Your task to perform on an android device: show emergency info Image 0: 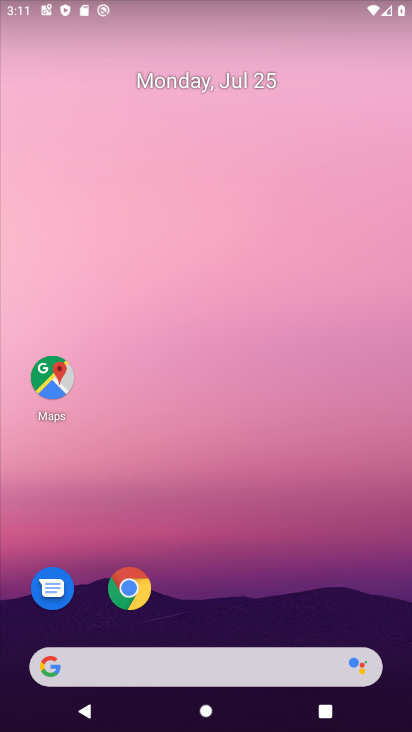
Step 0: drag from (330, 539) to (308, 64)
Your task to perform on an android device: show emergency info Image 1: 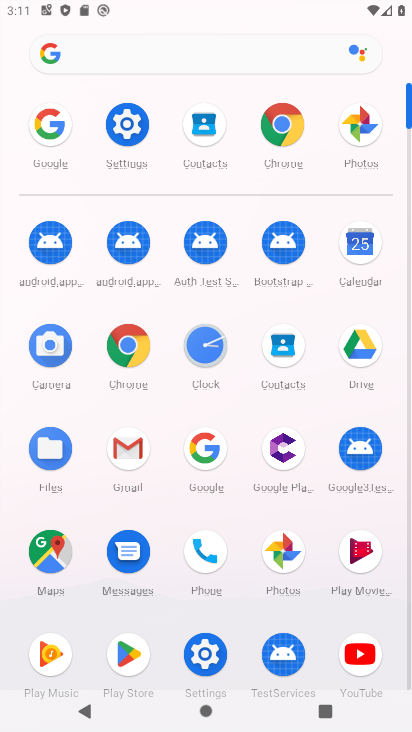
Step 1: click (123, 124)
Your task to perform on an android device: show emergency info Image 2: 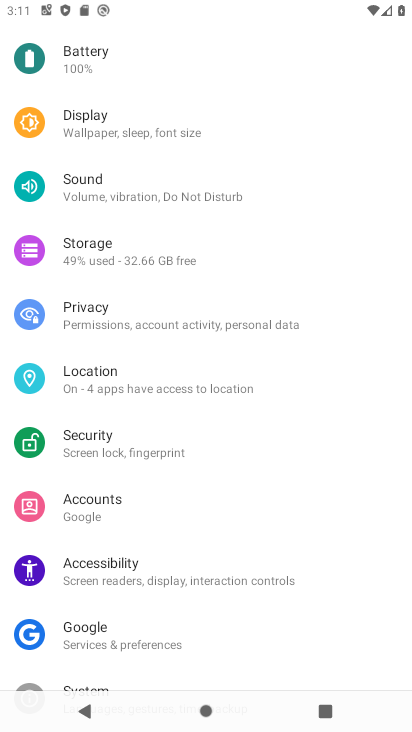
Step 2: drag from (200, 685) to (251, 219)
Your task to perform on an android device: show emergency info Image 3: 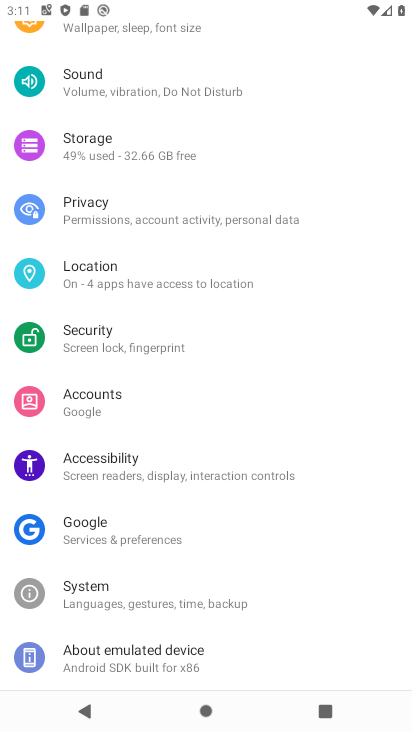
Step 3: click (108, 664)
Your task to perform on an android device: show emergency info Image 4: 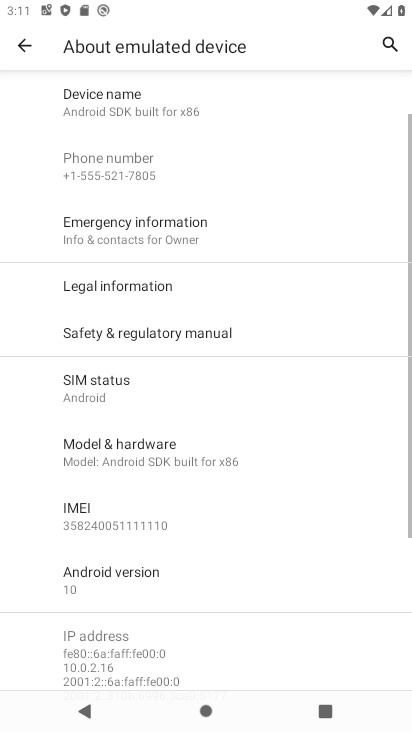
Step 4: click (186, 233)
Your task to perform on an android device: show emergency info Image 5: 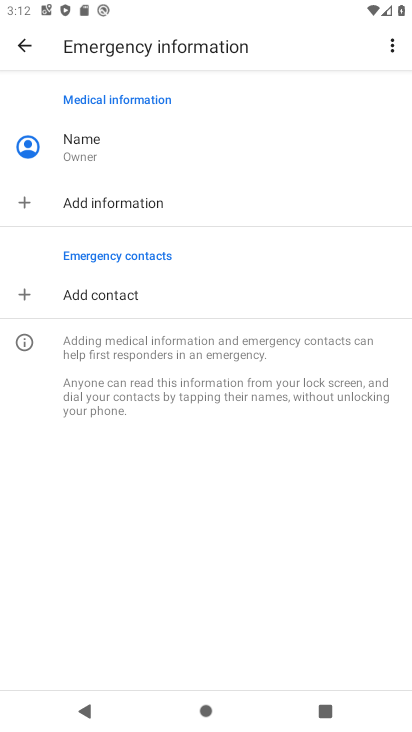
Step 5: task complete